Your task to perform on an android device: turn notification dots off Image 0: 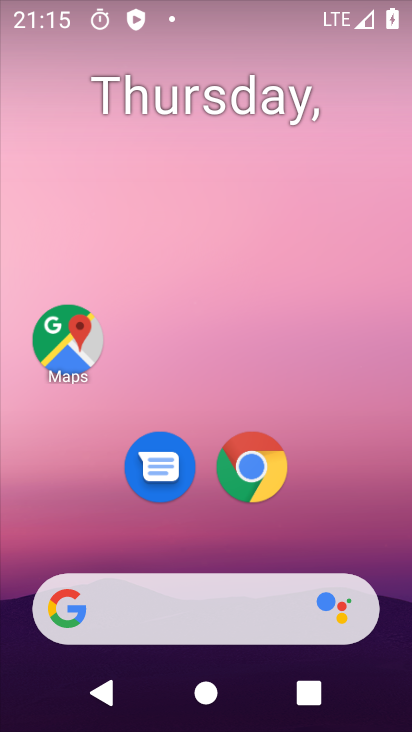
Step 0: drag from (354, 568) to (324, 154)
Your task to perform on an android device: turn notification dots off Image 1: 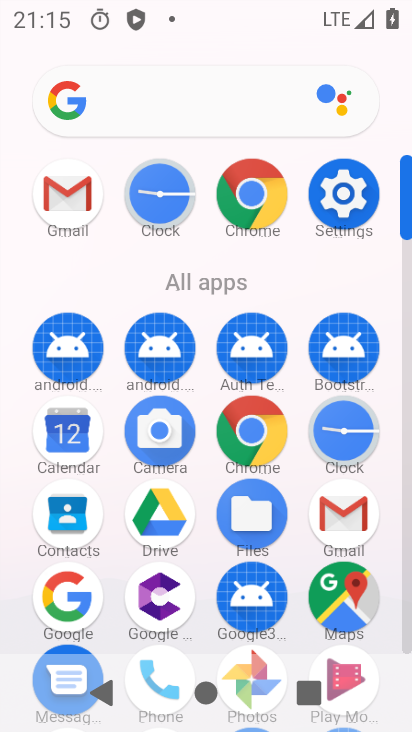
Step 1: click (341, 198)
Your task to perform on an android device: turn notification dots off Image 2: 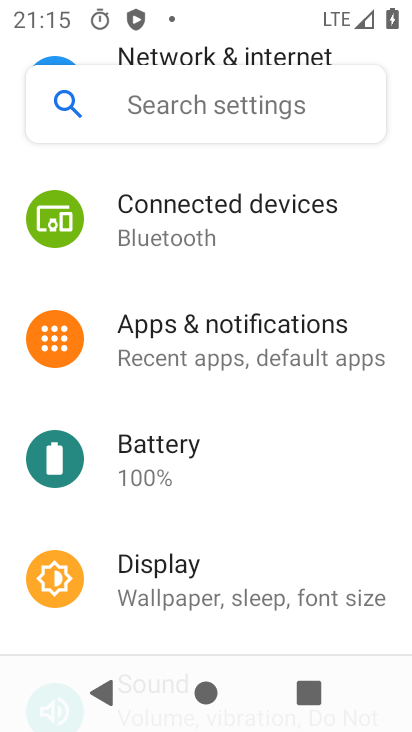
Step 2: drag from (257, 248) to (268, 364)
Your task to perform on an android device: turn notification dots off Image 3: 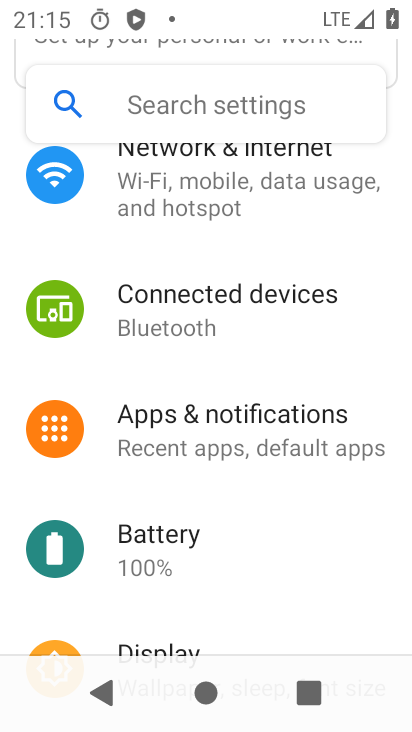
Step 3: click (267, 426)
Your task to perform on an android device: turn notification dots off Image 4: 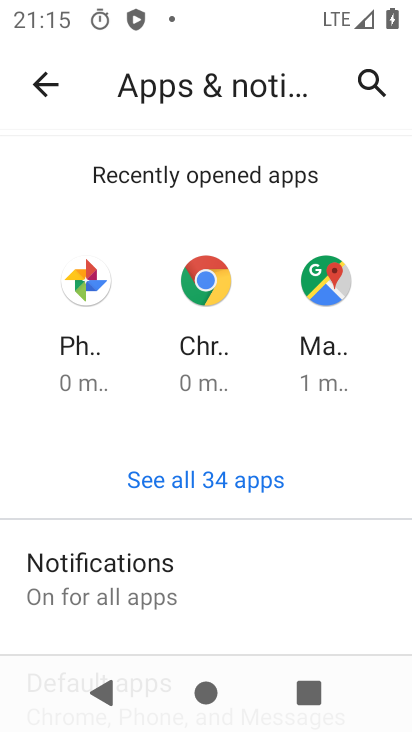
Step 4: drag from (225, 547) to (273, 250)
Your task to perform on an android device: turn notification dots off Image 5: 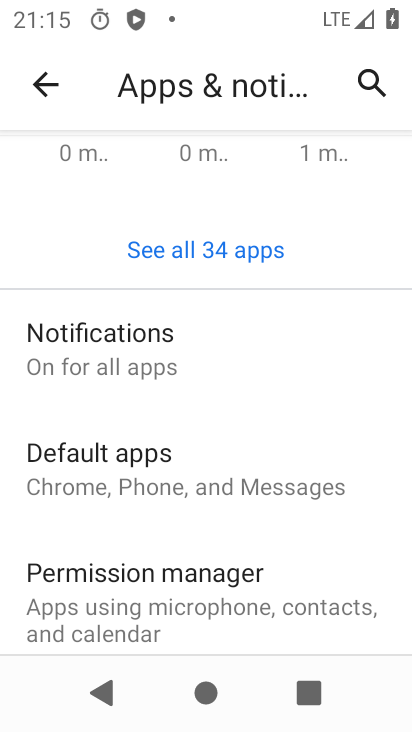
Step 5: click (140, 343)
Your task to perform on an android device: turn notification dots off Image 6: 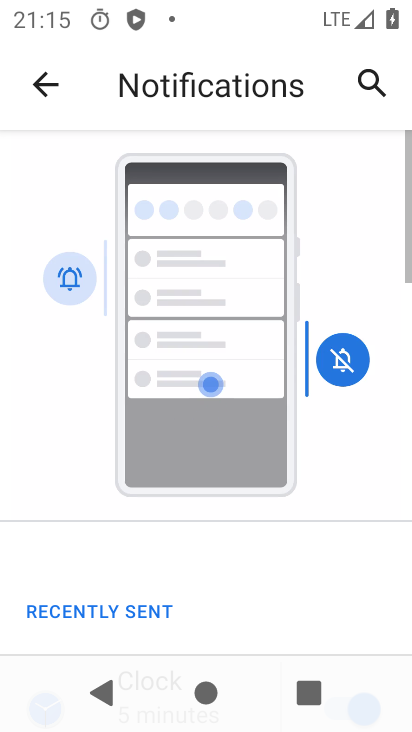
Step 6: drag from (286, 577) to (305, 8)
Your task to perform on an android device: turn notification dots off Image 7: 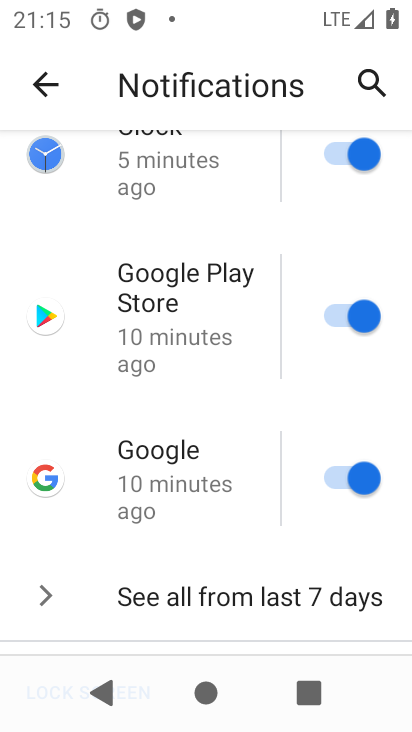
Step 7: drag from (218, 543) to (239, 55)
Your task to perform on an android device: turn notification dots off Image 8: 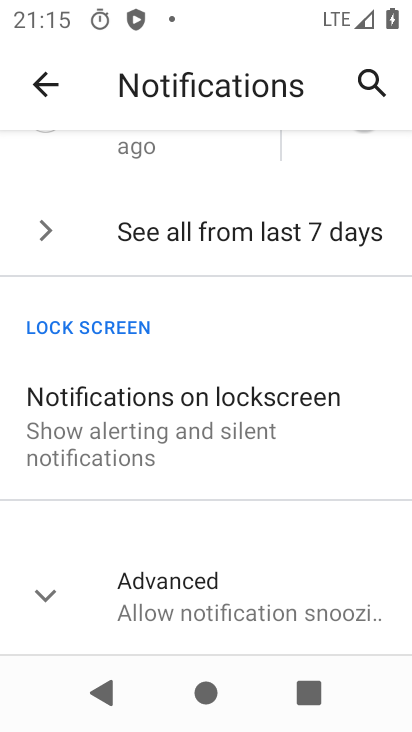
Step 8: click (187, 579)
Your task to perform on an android device: turn notification dots off Image 9: 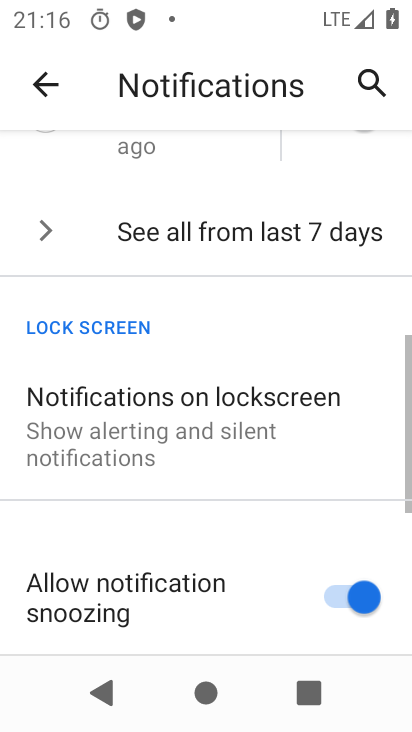
Step 9: task complete